Your task to perform on an android device: Clear the shopping cart on ebay.com. Add razer kraken to the cart on ebay.com Image 0: 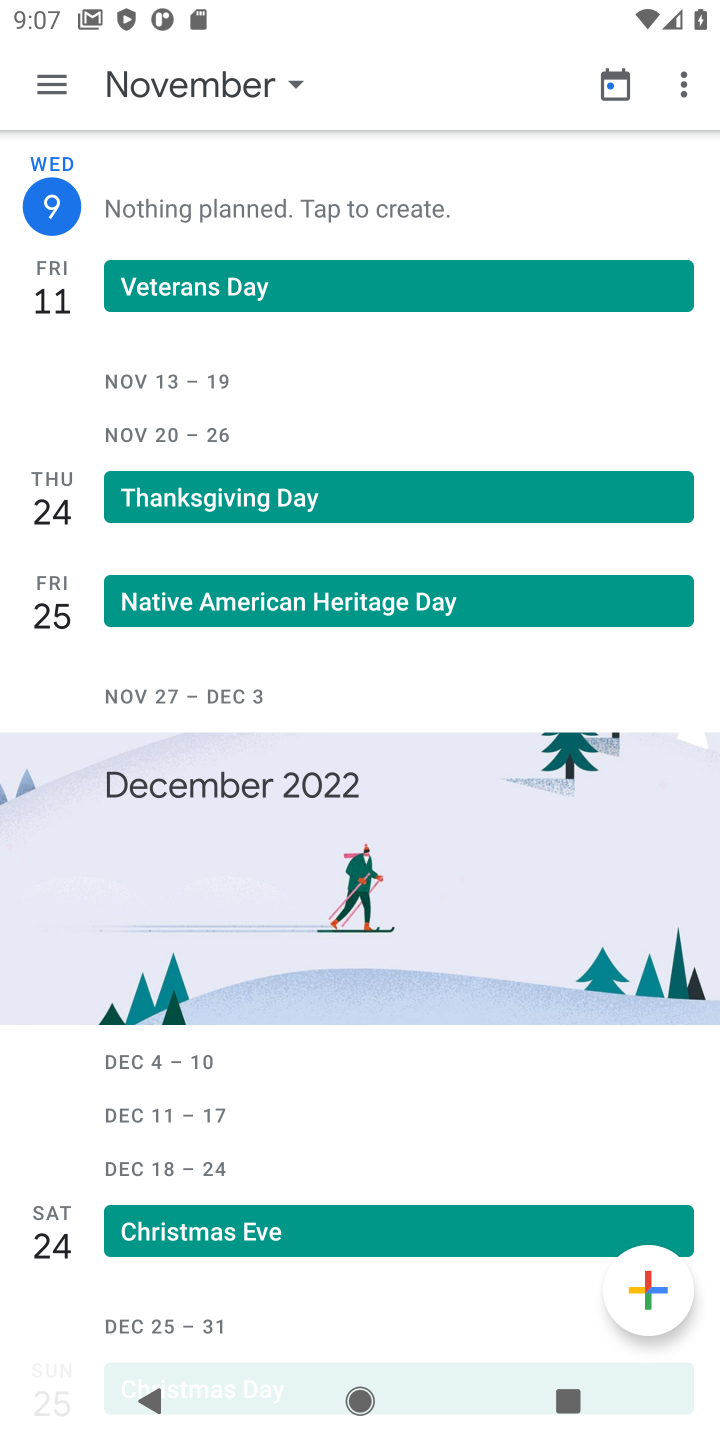
Step 0: press home button
Your task to perform on an android device: Clear the shopping cart on ebay.com. Add razer kraken to the cart on ebay.com Image 1: 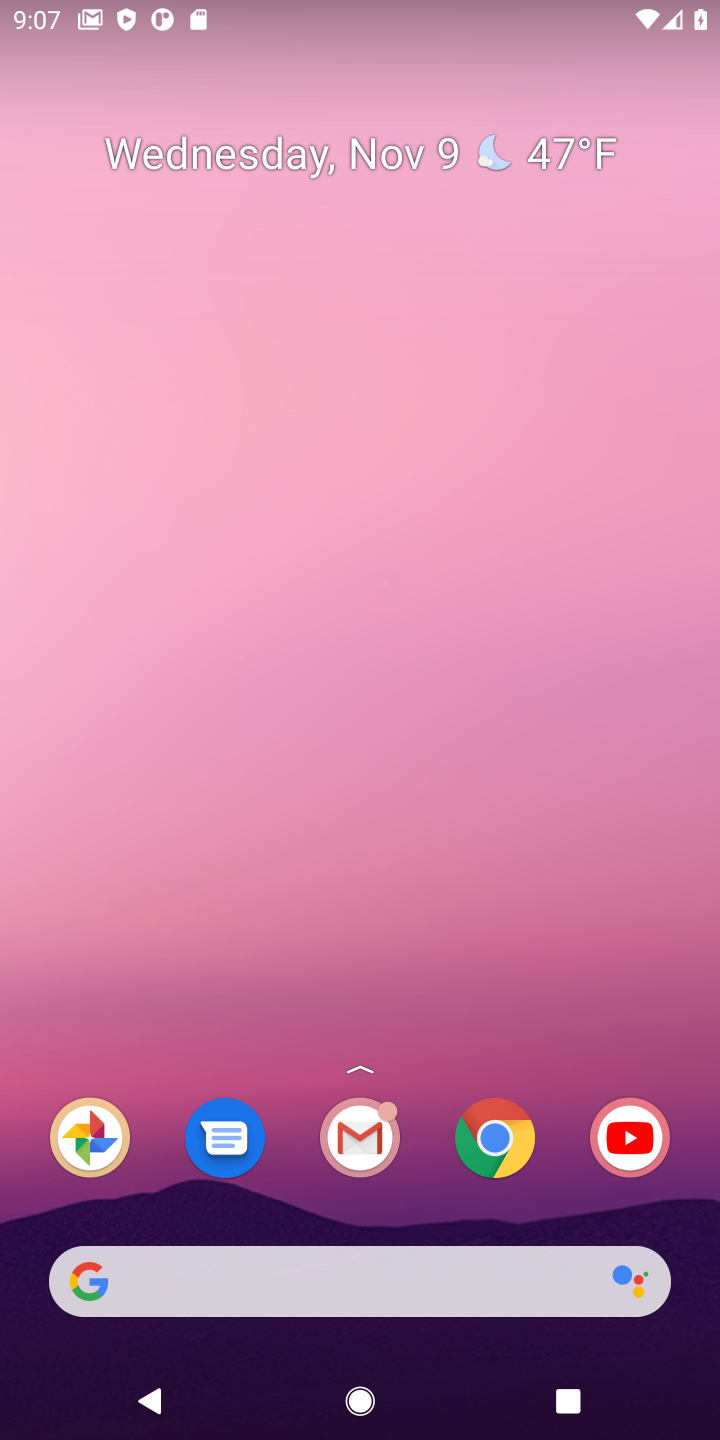
Step 1: drag from (429, 1238) to (256, 93)
Your task to perform on an android device: Clear the shopping cart on ebay.com. Add razer kraken to the cart on ebay.com Image 2: 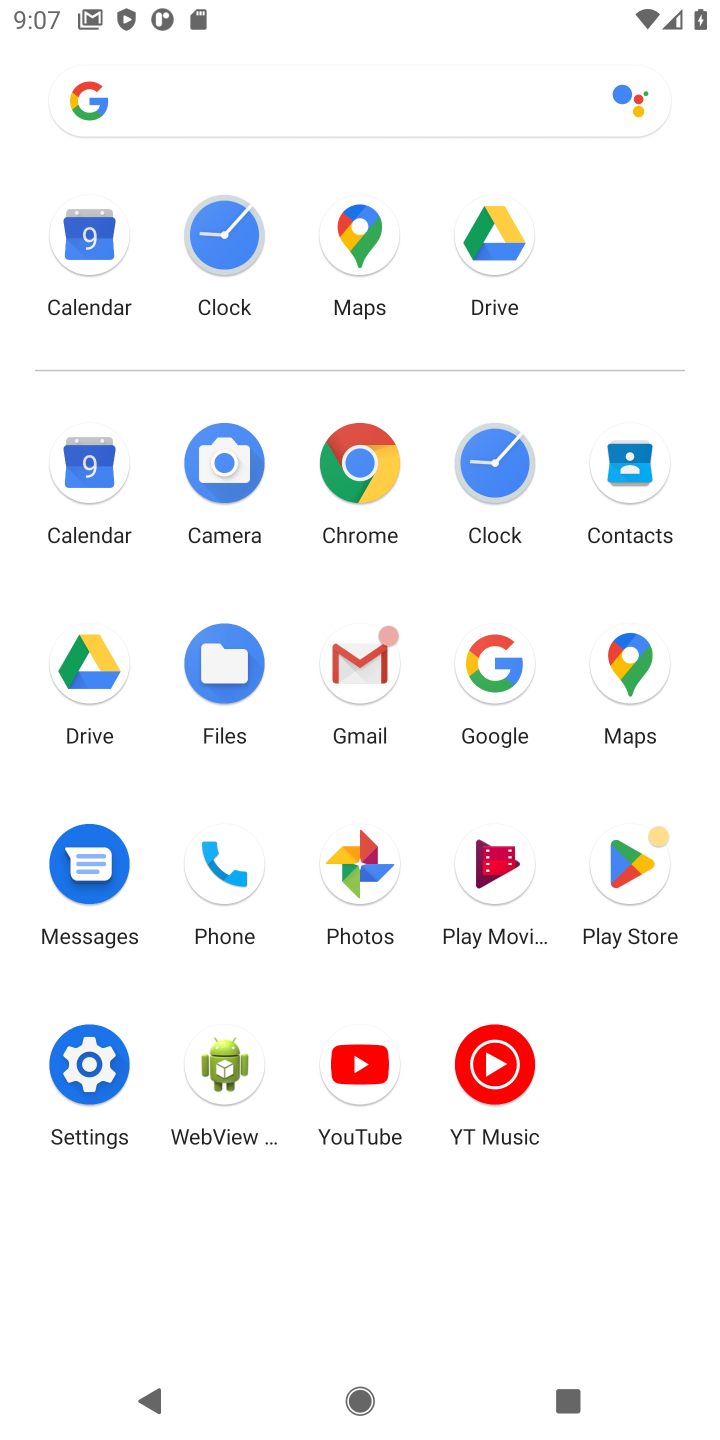
Step 2: click (363, 453)
Your task to perform on an android device: Clear the shopping cart on ebay.com. Add razer kraken to the cart on ebay.com Image 3: 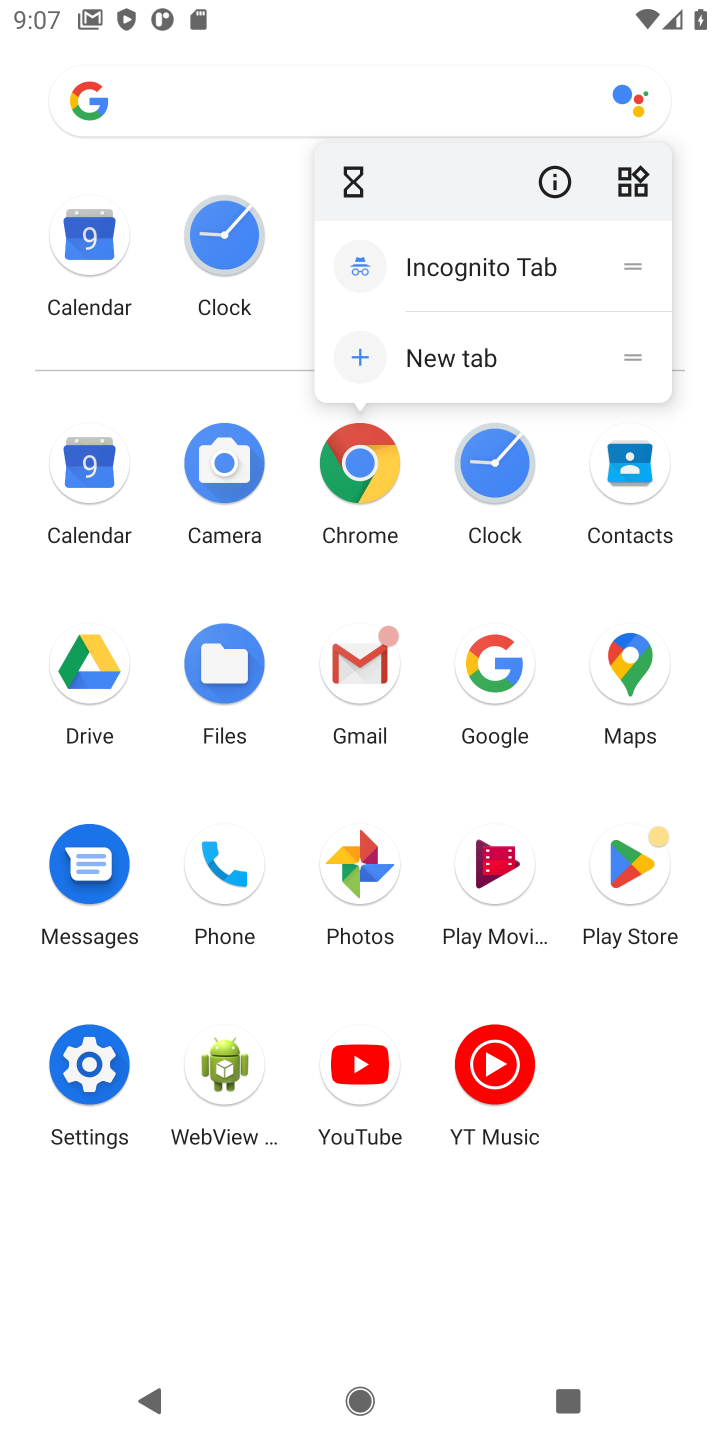
Step 3: click (364, 463)
Your task to perform on an android device: Clear the shopping cart on ebay.com. Add razer kraken to the cart on ebay.com Image 4: 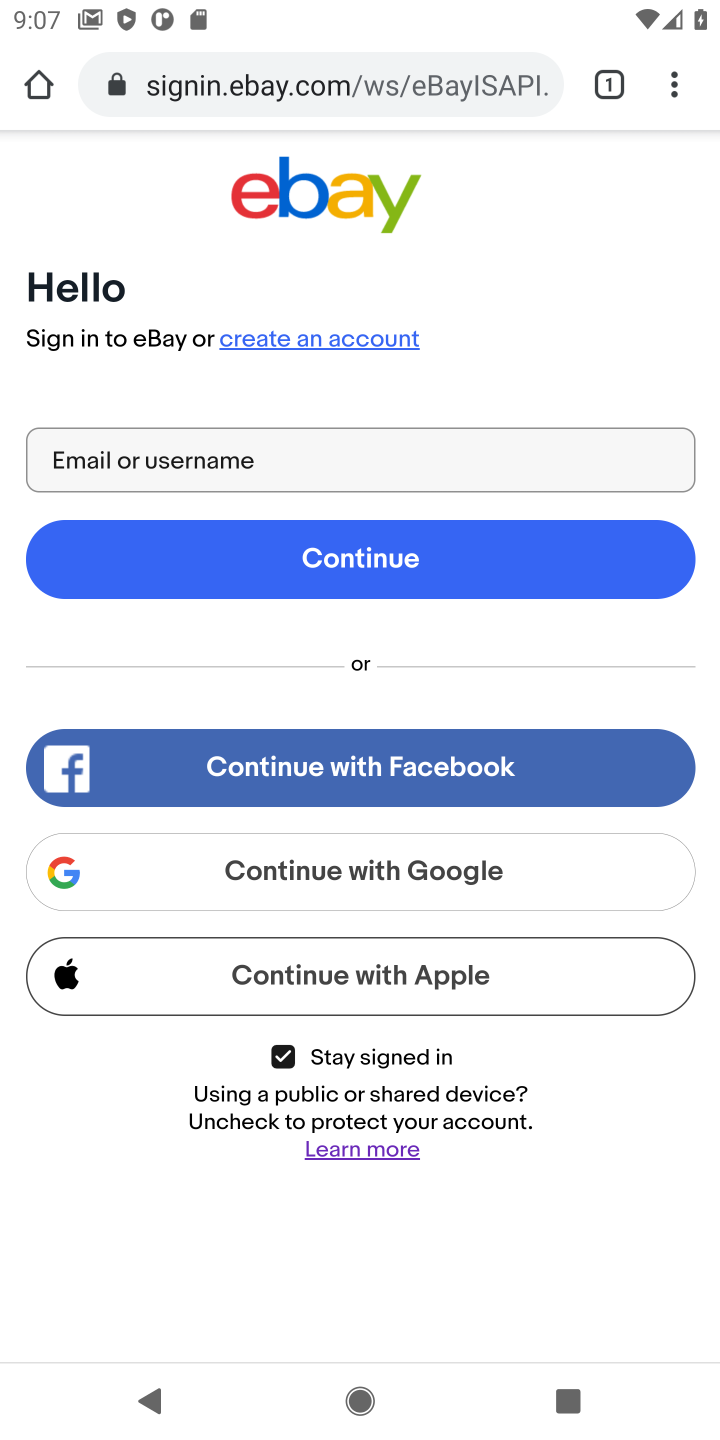
Step 4: click (370, 85)
Your task to perform on an android device: Clear the shopping cart on ebay.com. Add razer kraken to the cart on ebay.com Image 5: 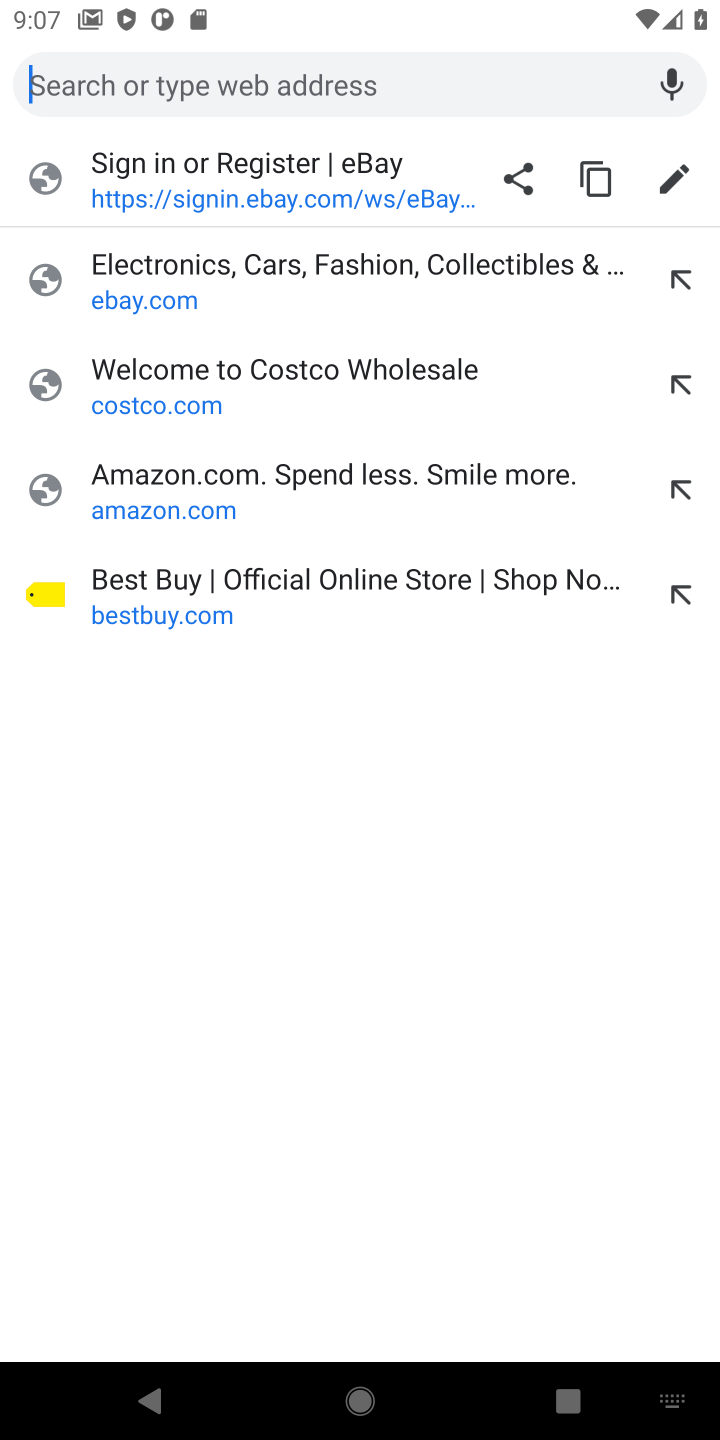
Step 5: type "ebay.com"
Your task to perform on an android device: Clear the shopping cart on ebay.com. Add razer kraken to the cart on ebay.com Image 6: 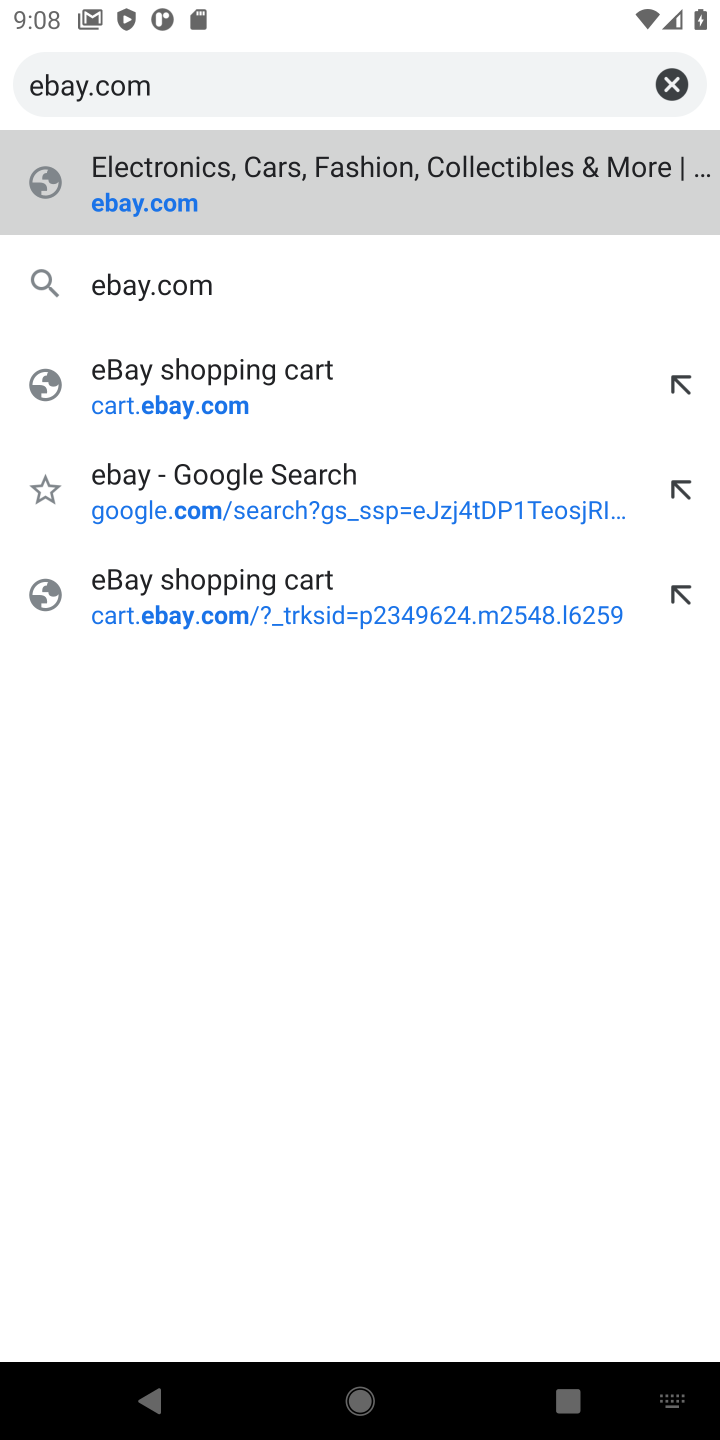
Step 6: press enter
Your task to perform on an android device: Clear the shopping cart on ebay.com. Add razer kraken to the cart on ebay.com Image 7: 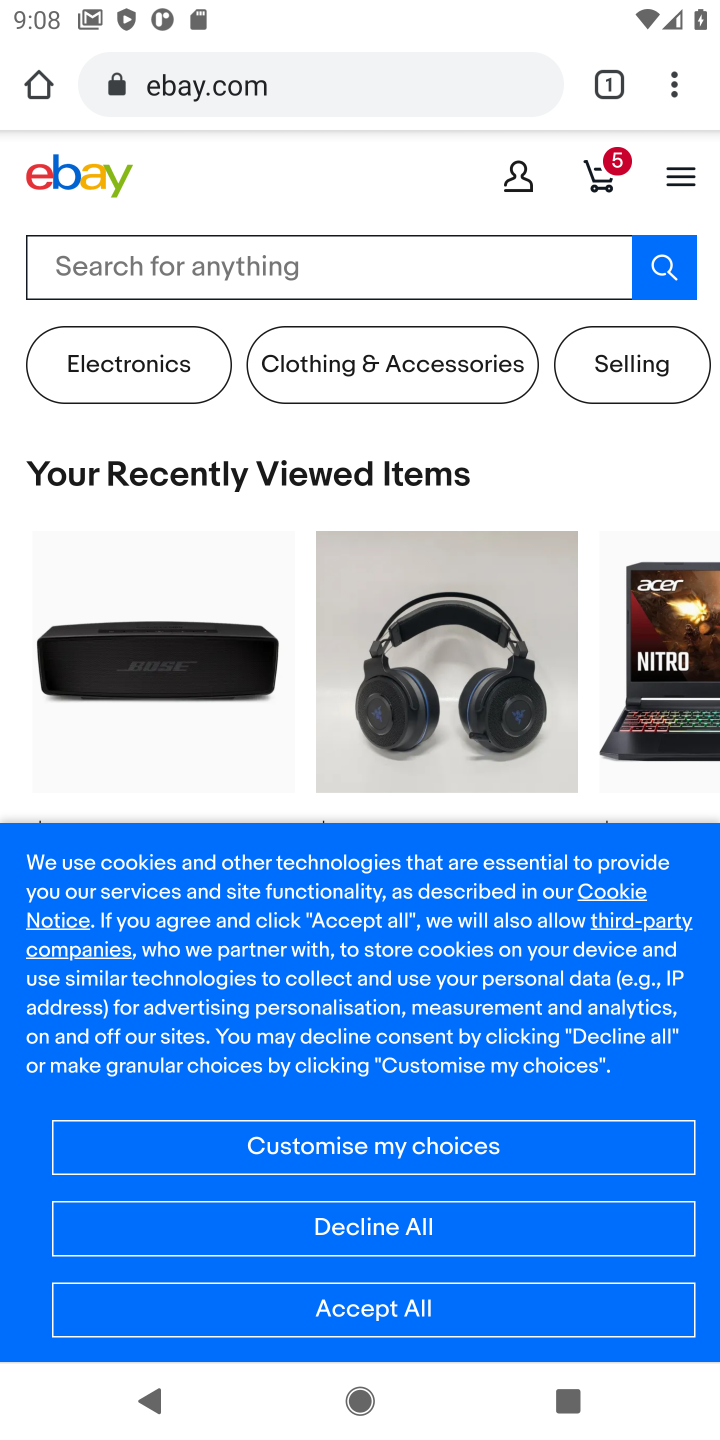
Step 7: click (613, 161)
Your task to perform on an android device: Clear the shopping cart on ebay.com. Add razer kraken to the cart on ebay.com Image 8: 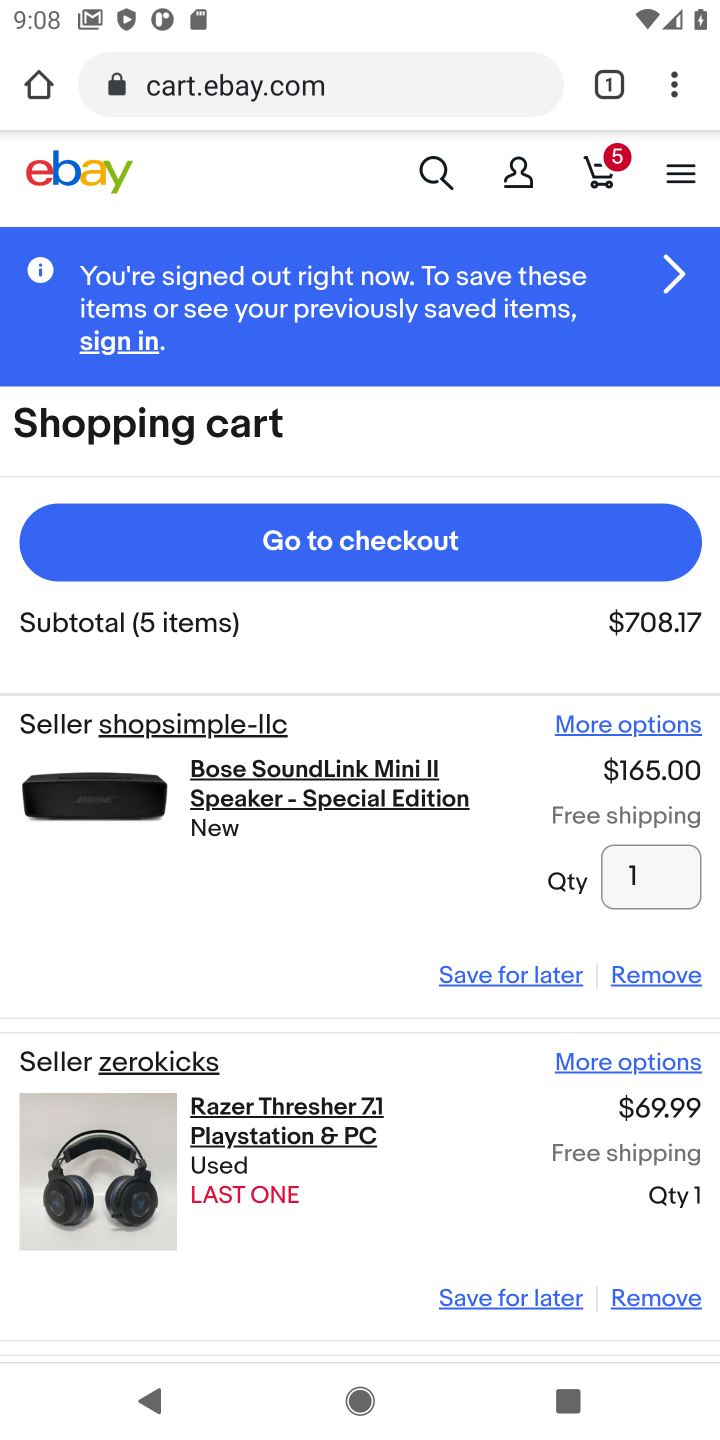
Step 8: click (671, 984)
Your task to perform on an android device: Clear the shopping cart on ebay.com. Add razer kraken to the cart on ebay.com Image 9: 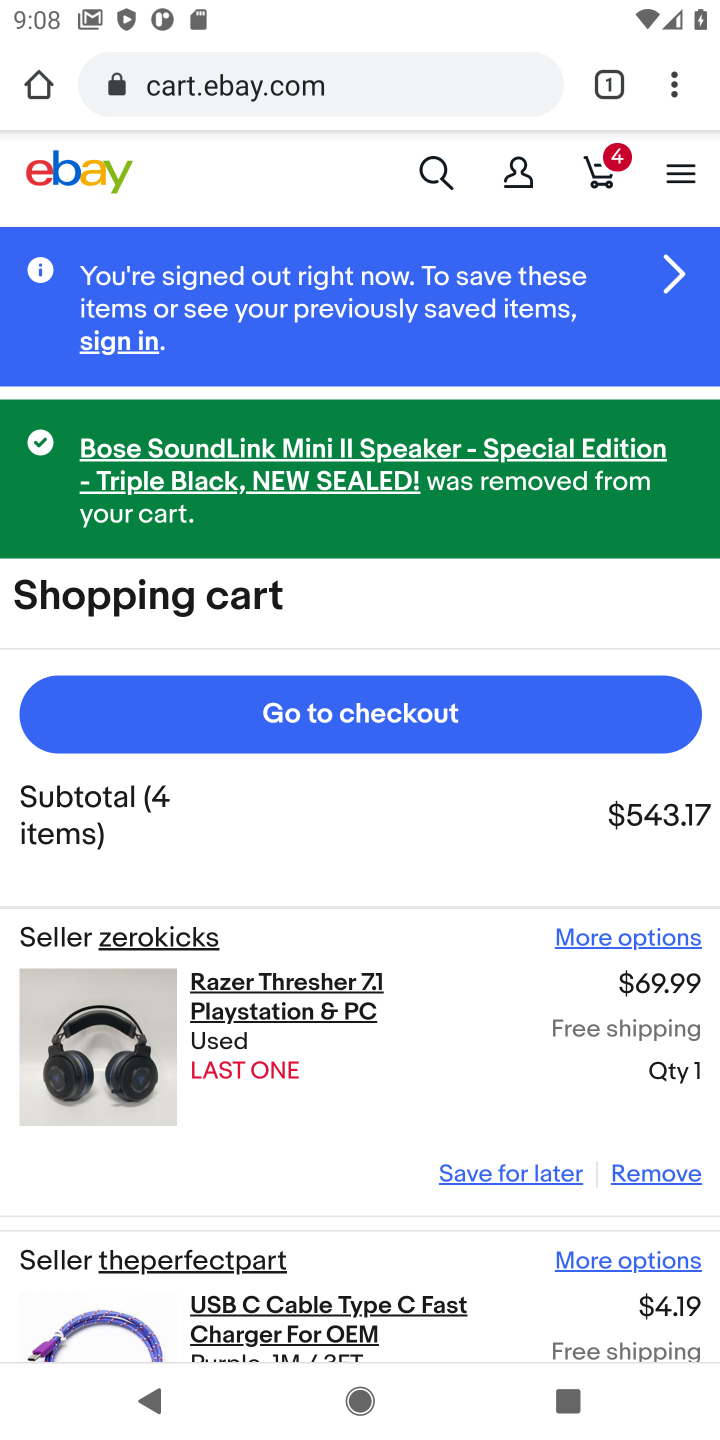
Step 9: click (671, 984)
Your task to perform on an android device: Clear the shopping cart on ebay.com. Add razer kraken to the cart on ebay.com Image 10: 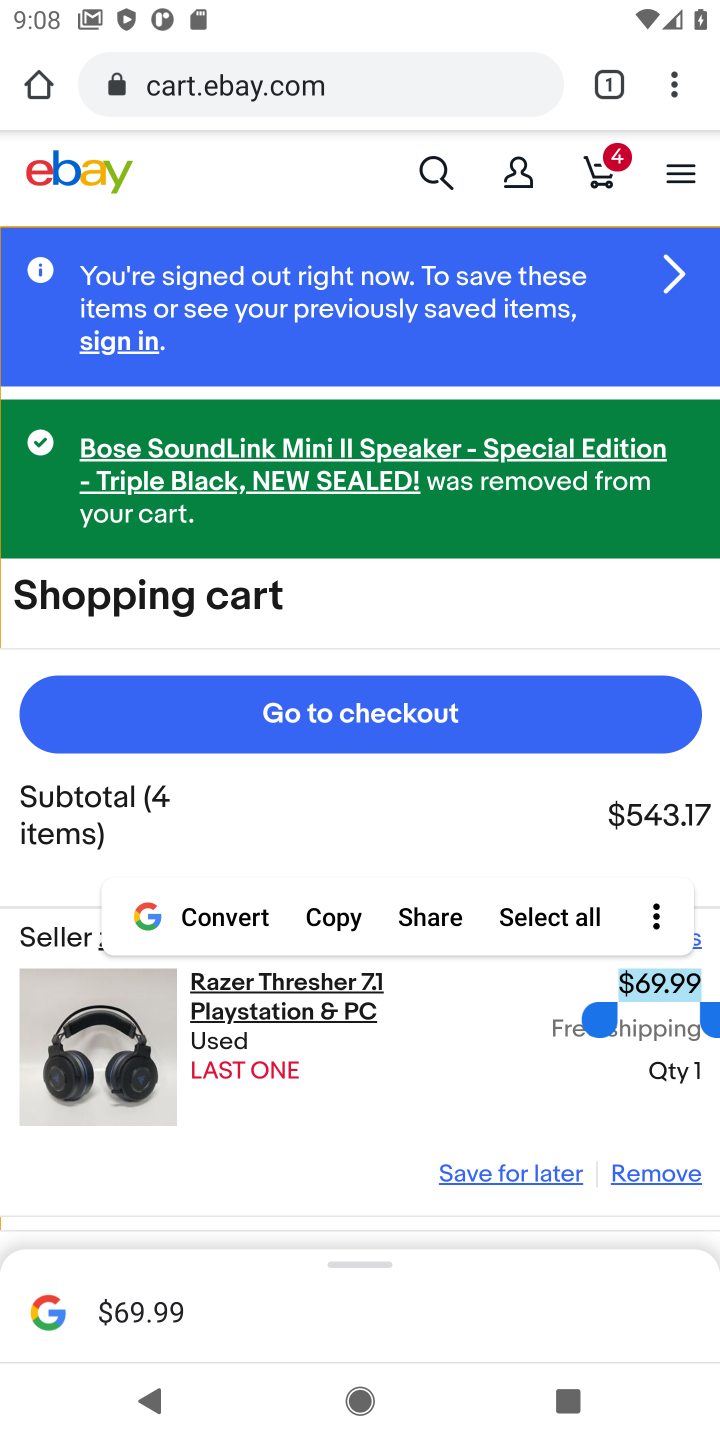
Step 10: click (672, 1171)
Your task to perform on an android device: Clear the shopping cart on ebay.com. Add razer kraken to the cart on ebay.com Image 11: 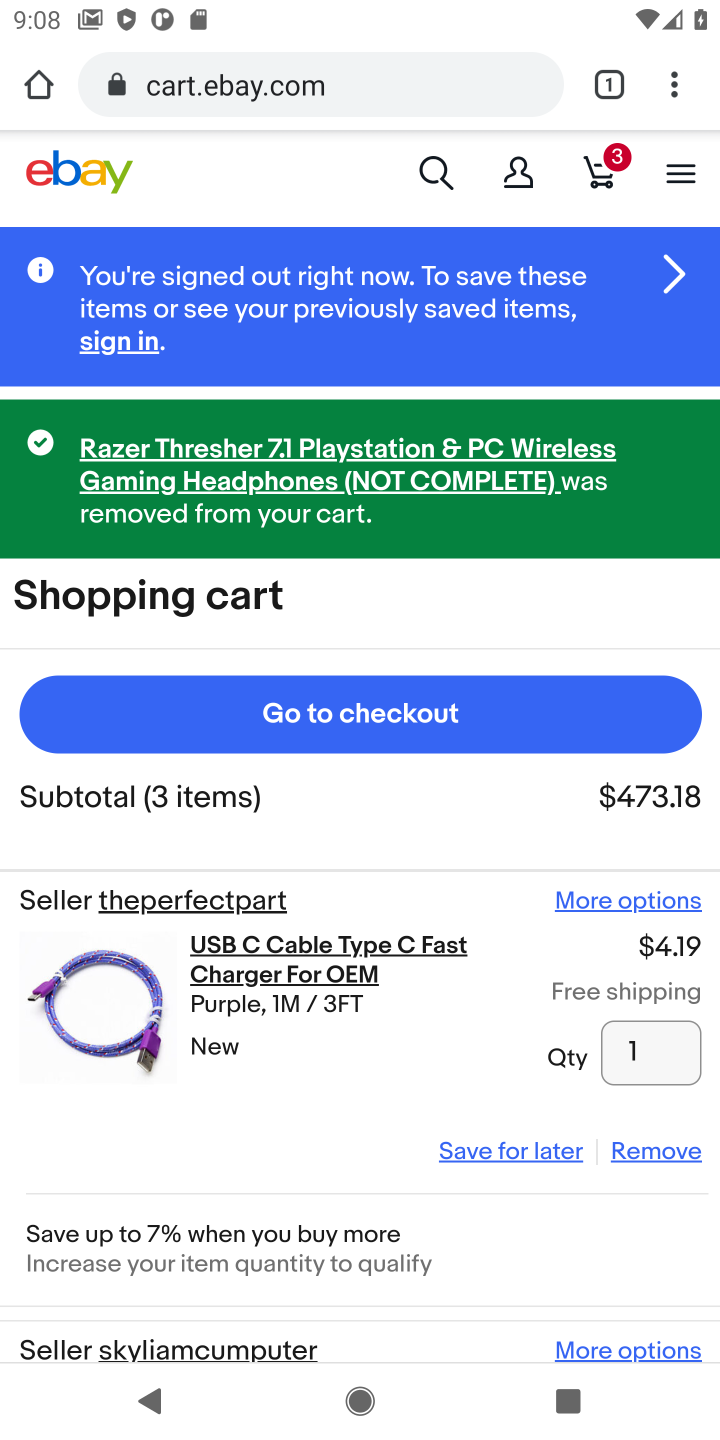
Step 11: click (658, 1144)
Your task to perform on an android device: Clear the shopping cart on ebay.com. Add razer kraken to the cart on ebay.com Image 12: 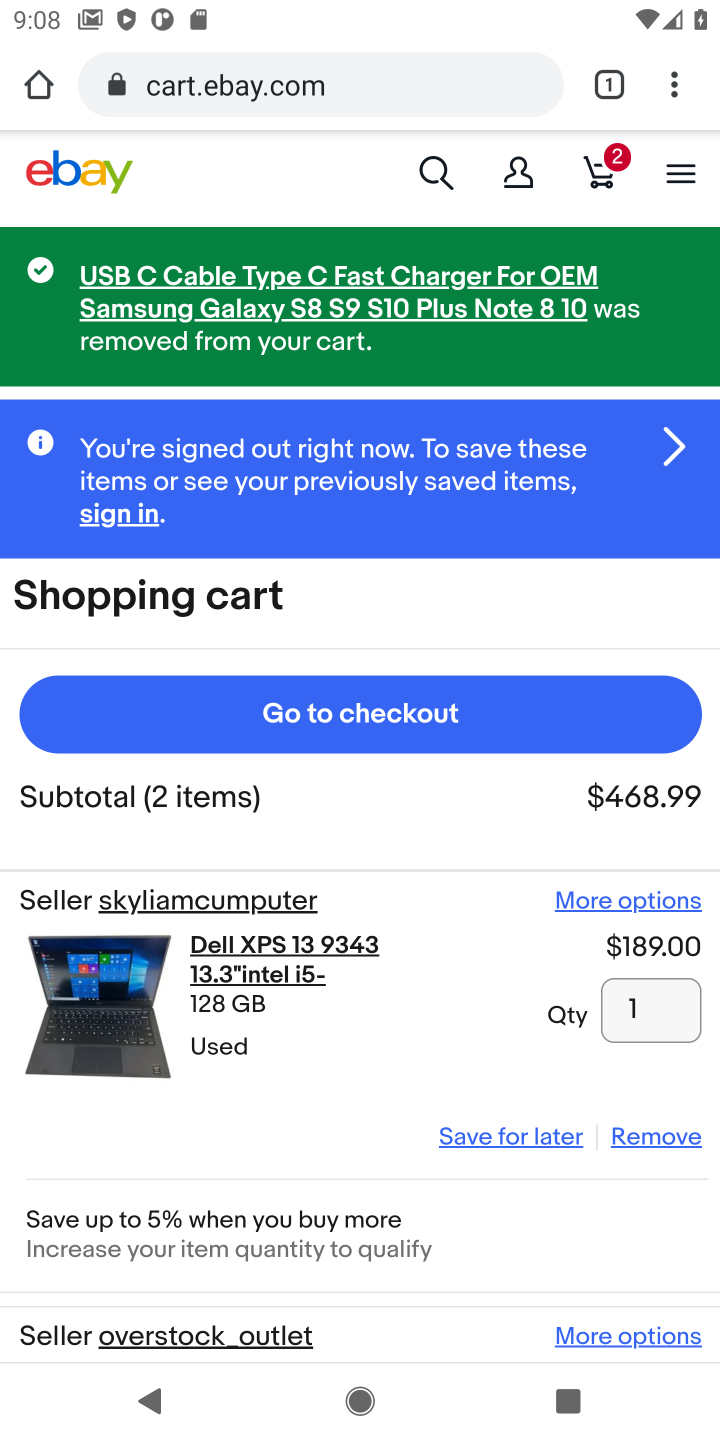
Step 12: click (649, 1139)
Your task to perform on an android device: Clear the shopping cart on ebay.com. Add razer kraken to the cart on ebay.com Image 13: 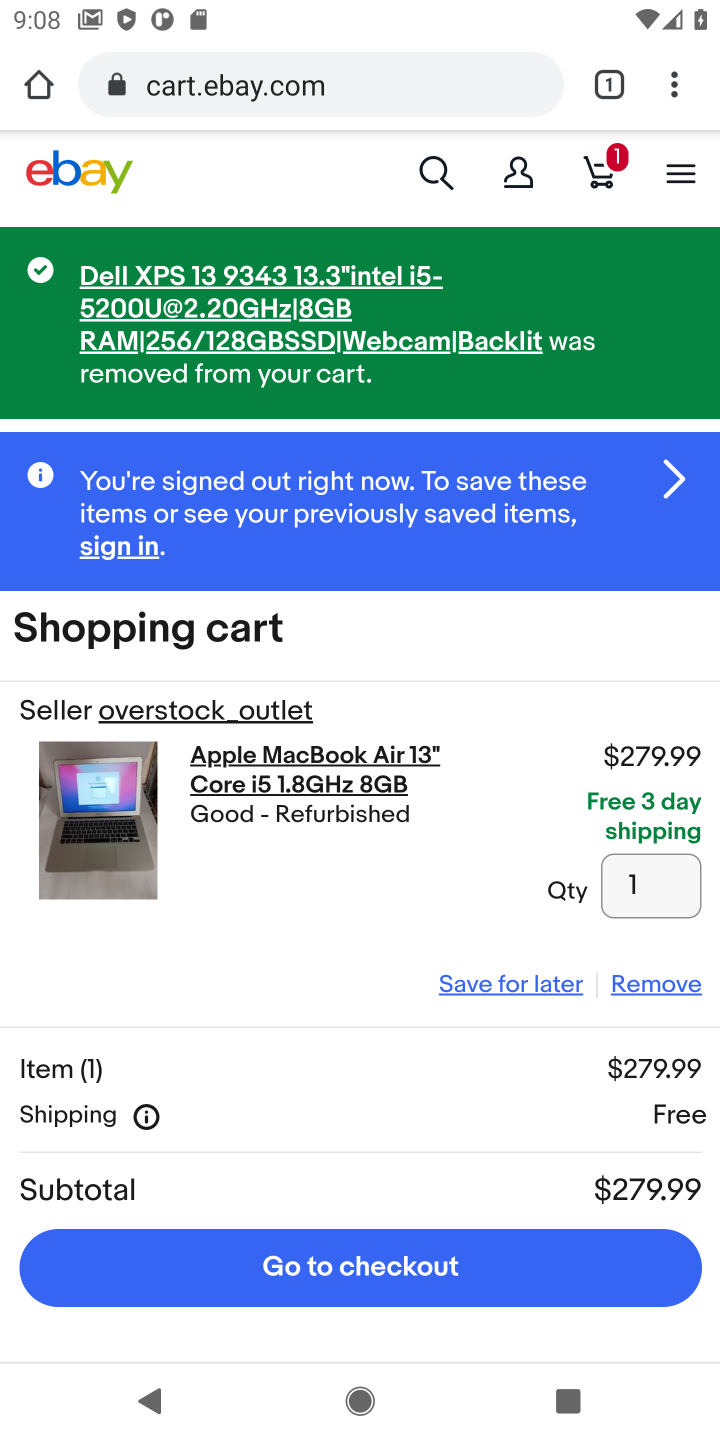
Step 13: click (630, 977)
Your task to perform on an android device: Clear the shopping cart on ebay.com. Add razer kraken to the cart on ebay.com Image 14: 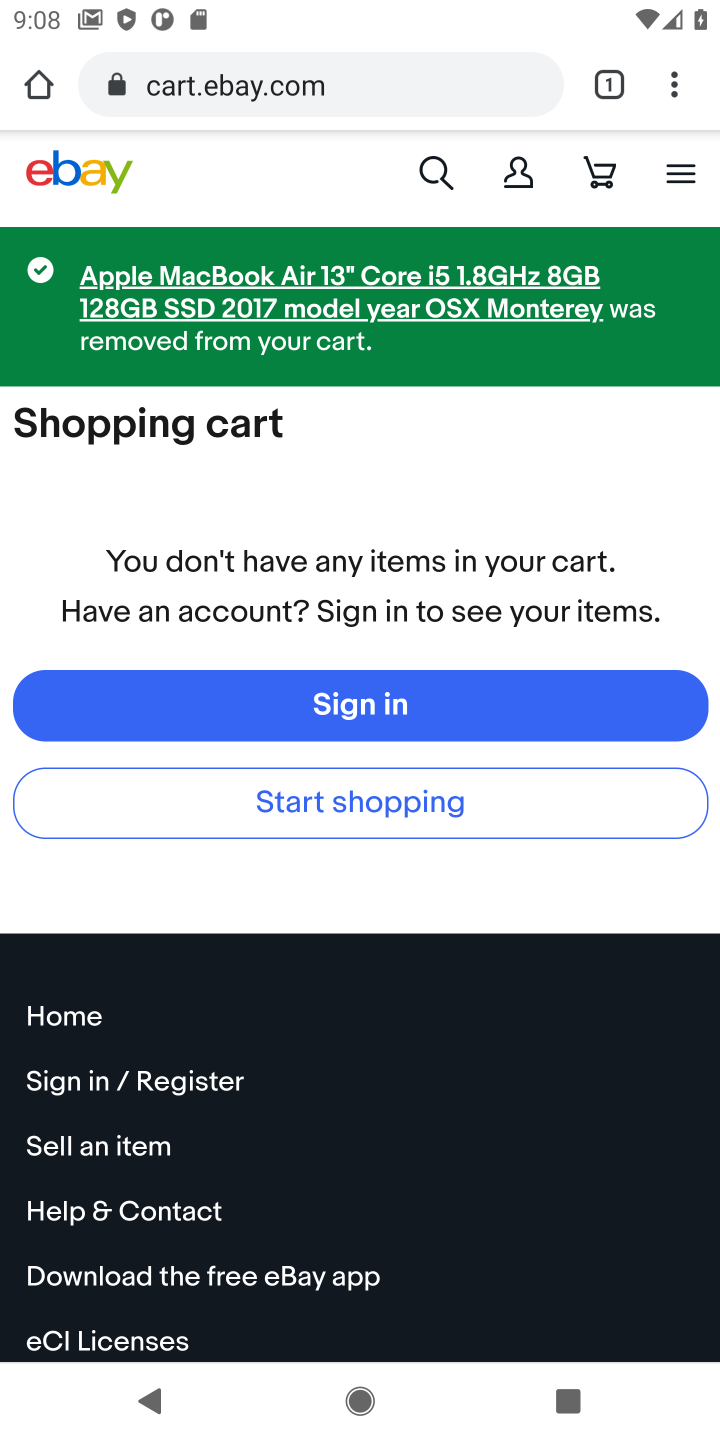
Step 14: click (434, 176)
Your task to perform on an android device: Clear the shopping cart on ebay.com. Add razer kraken to the cart on ebay.com Image 15: 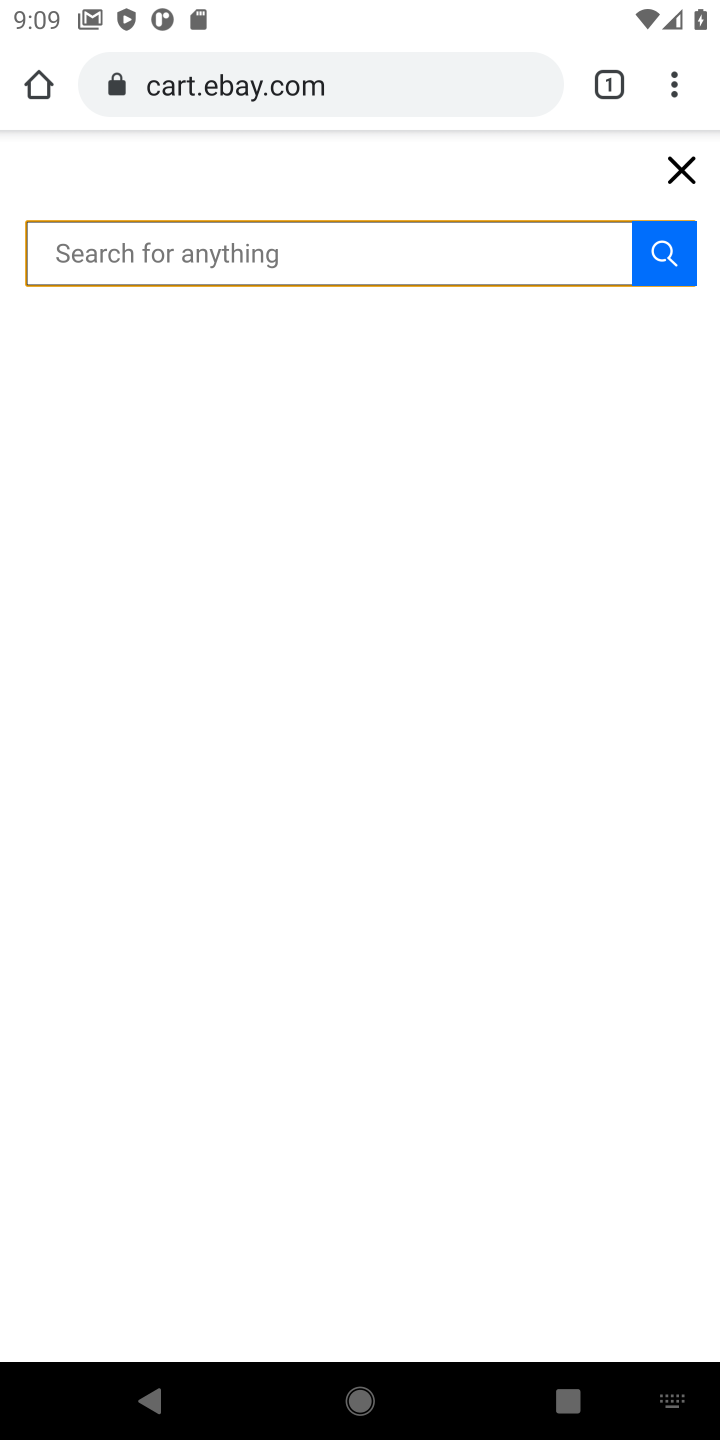
Step 15: type "razer kraken"
Your task to perform on an android device: Clear the shopping cart on ebay.com. Add razer kraken to the cart on ebay.com Image 16: 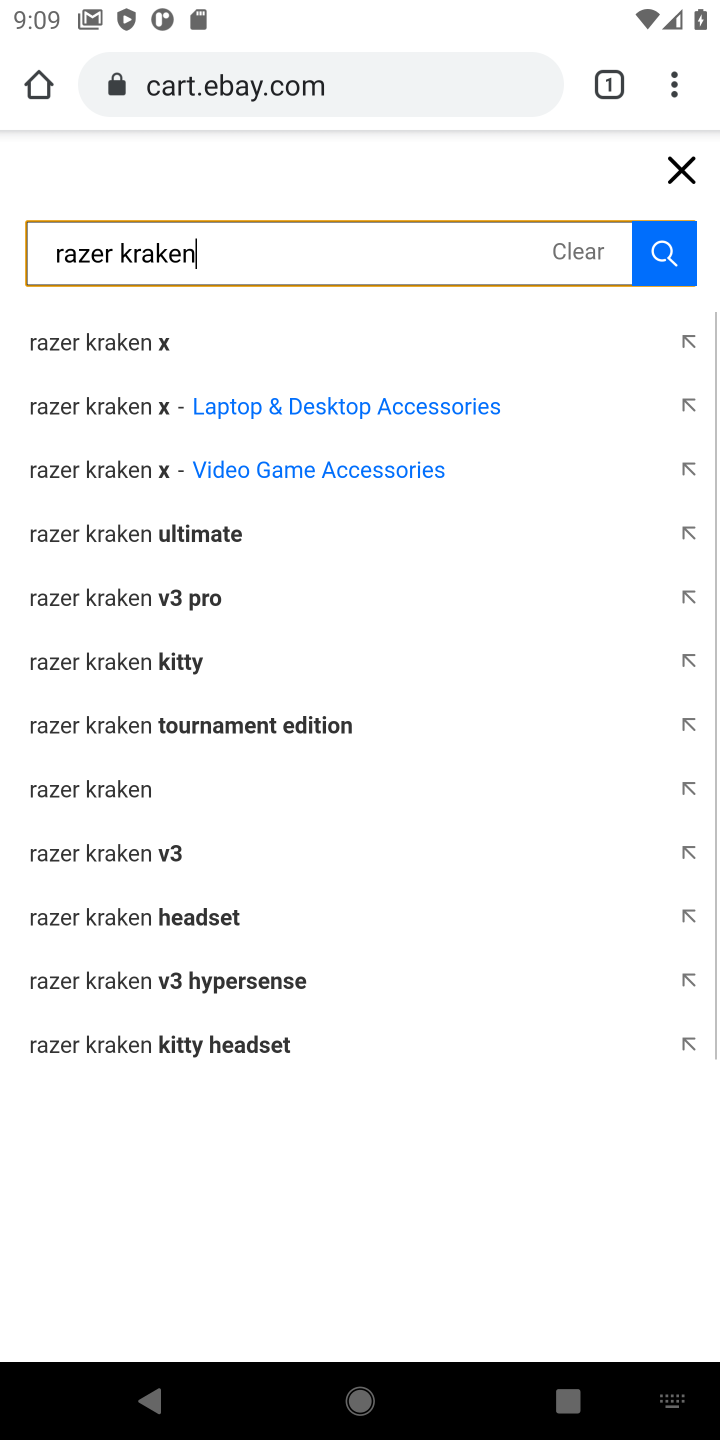
Step 16: press enter
Your task to perform on an android device: Clear the shopping cart on ebay.com. Add razer kraken to the cart on ebay.com Image 17: 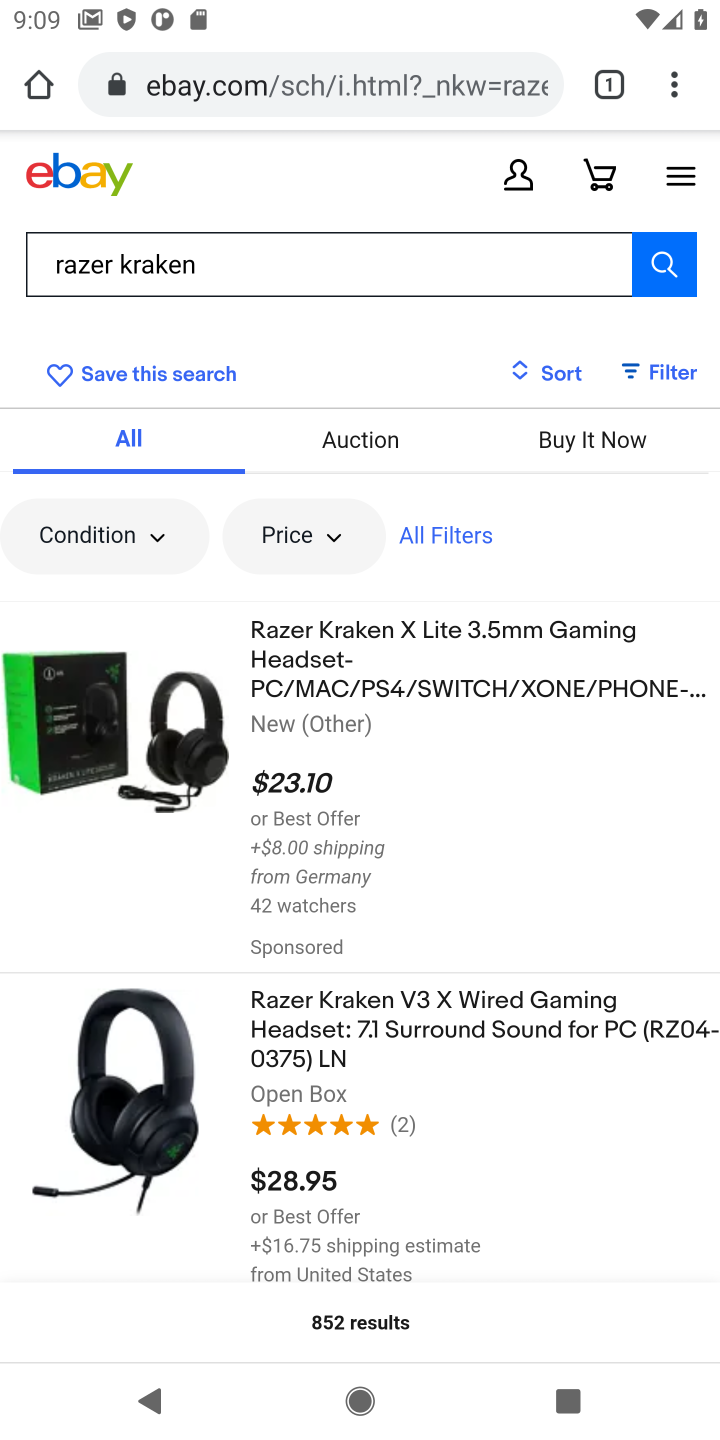
Step 17: click (344, 668)
Your task to perform on an android device: Clear the shopping cart on ebay.com. Add razer kraken to the cart on ebay.com Image 18: 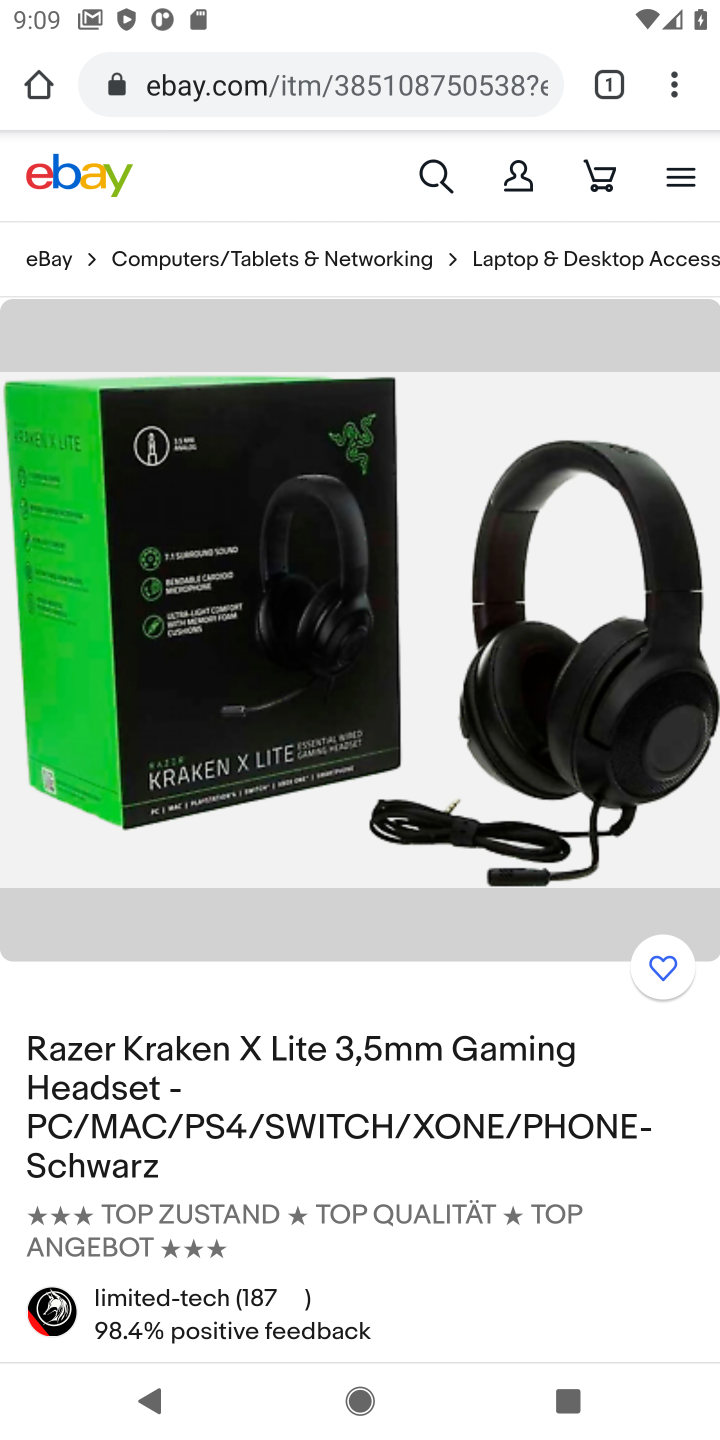
Step 18: drag from (267, 1080) to (396, 279)
Your task to perform on an android device: Clear the shopping cart on ebay.com. Add razer kraken to the cart on ebay.com Image 19: 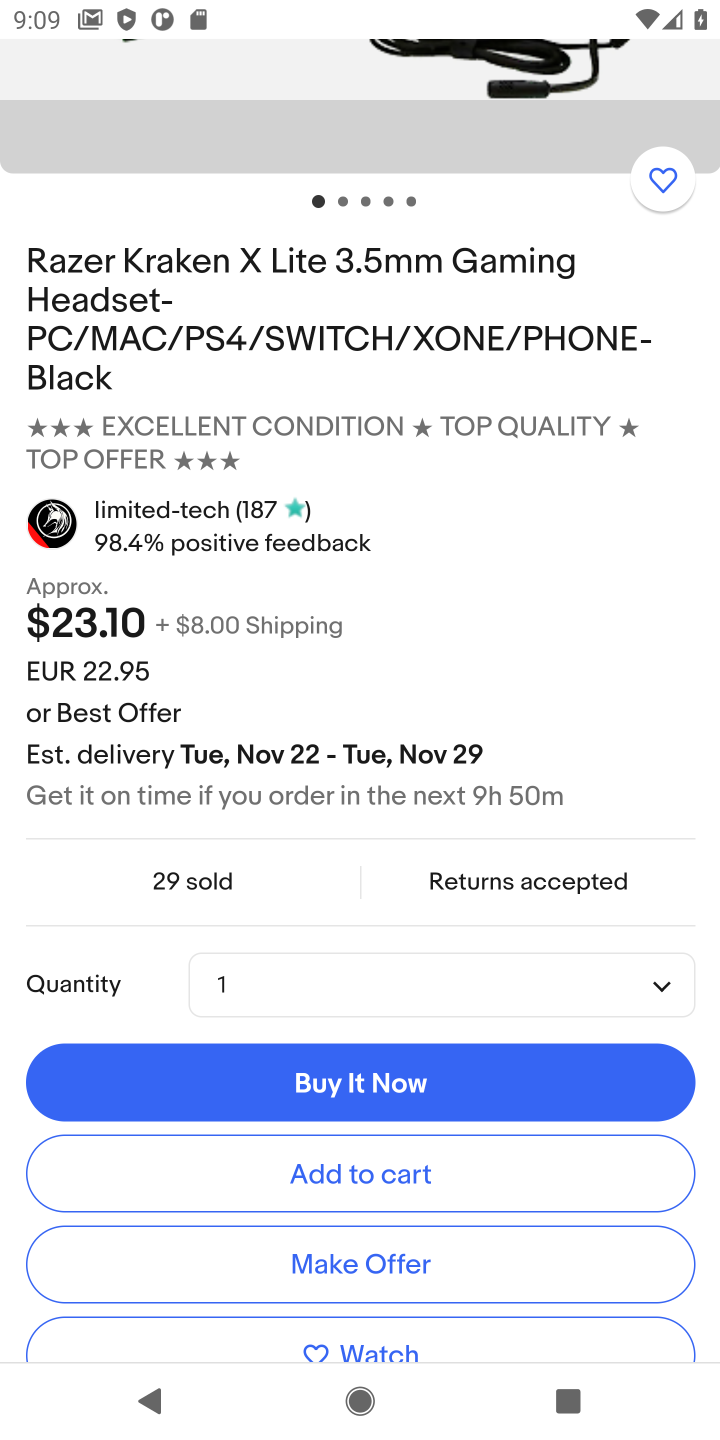
Step 19: click (515, 1166)
Your task to perform on an android device: Clear the shopping cart on ebay.com. Add razer kraken to the cart on ebay.com Image 20: 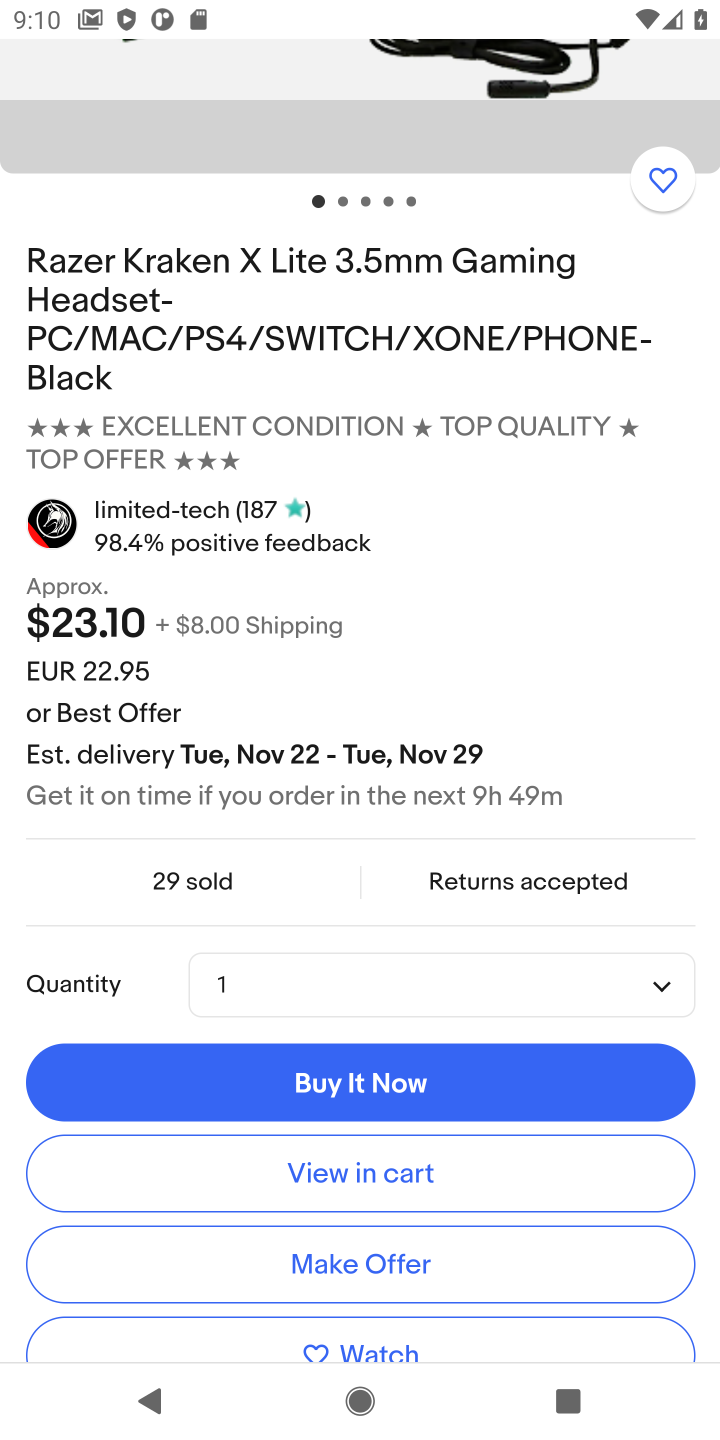
Step 20: task complete